Your task to perform on an android device: Go to Wikipedia Image 0: 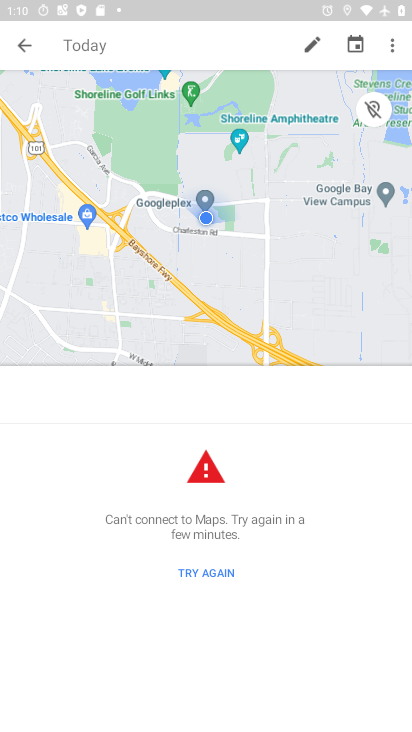
Step 0: press home button
Your task to perform on an android device: Go to Wikipedia Image 1: 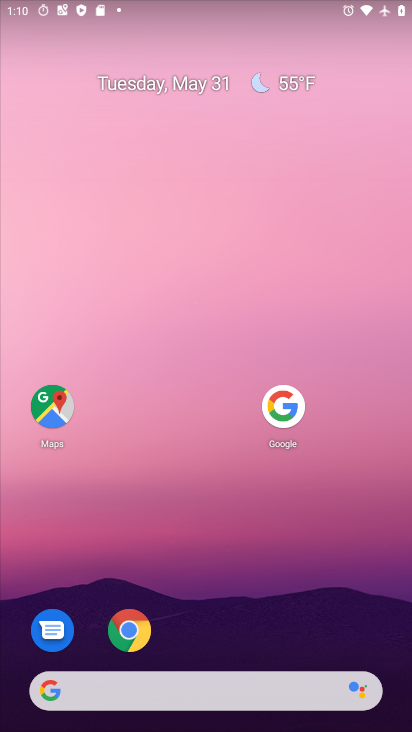
Step 1: click (126, 637)
Your task to perform on an android device: Go to Wikipedia Image 2: 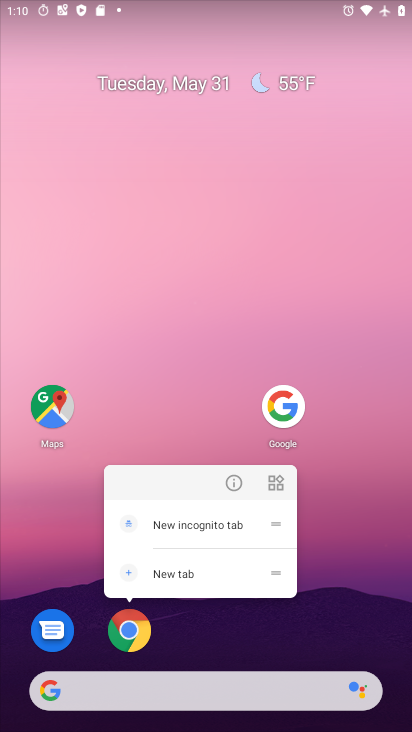
Step 2: click (132, 629)
Your task to perform on an android device: Go to Wikipedia Image 3: 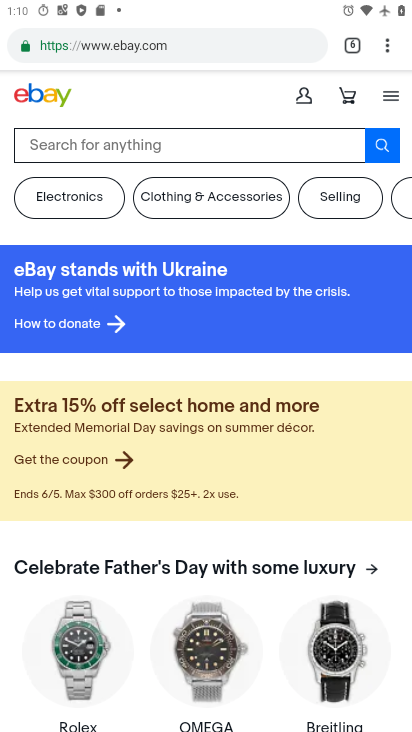
Step 3: drag from (386, 48) to (276, 153)
Your task to perform on an android device: Go to Wikipedia Image 4: 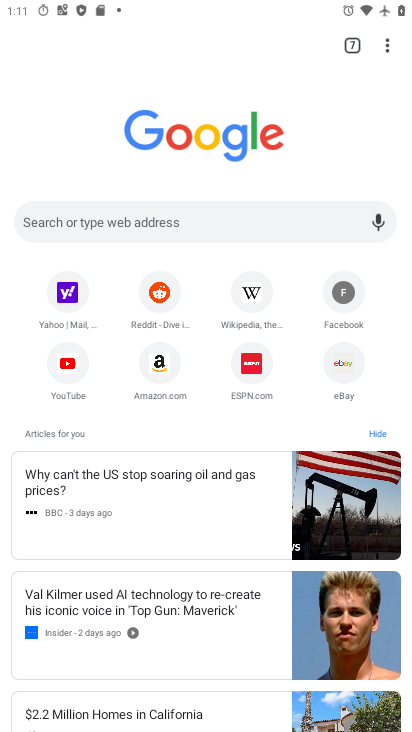
Step 4: click (255, 297)
Your task to perform on an android device: Go to Wikipedia Image 5: 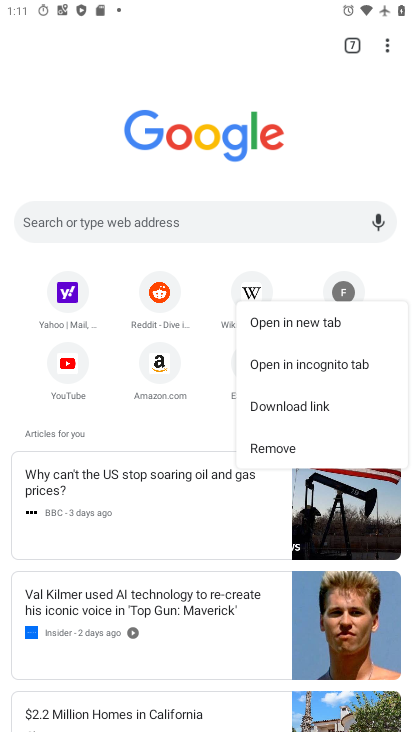
Step 5: click (249, 289)
Your task to perform on an android device: Go to Wikipedia Image 6: 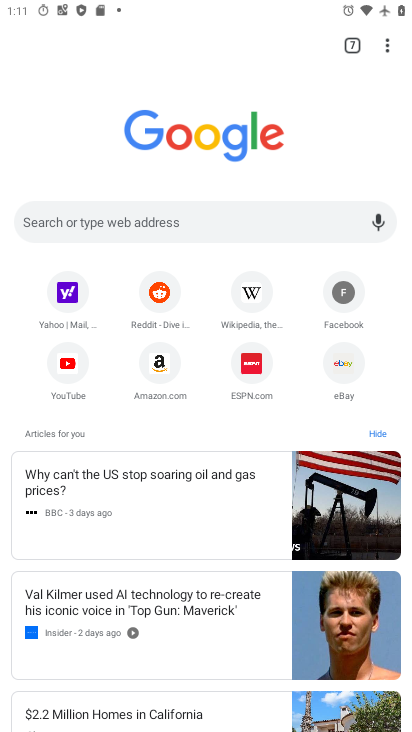
Step 6: click (255, 290)
Your task to perform on an android device: Go to Wikipedia Image 7: 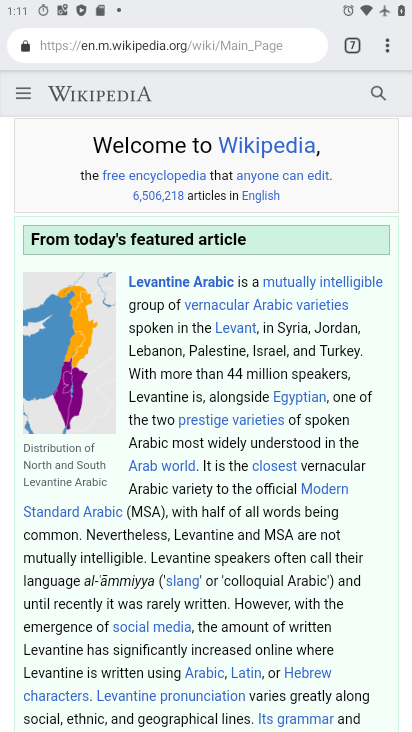
Step 7: task complete